Your task to perform on an android device: toggle location history Image 0: 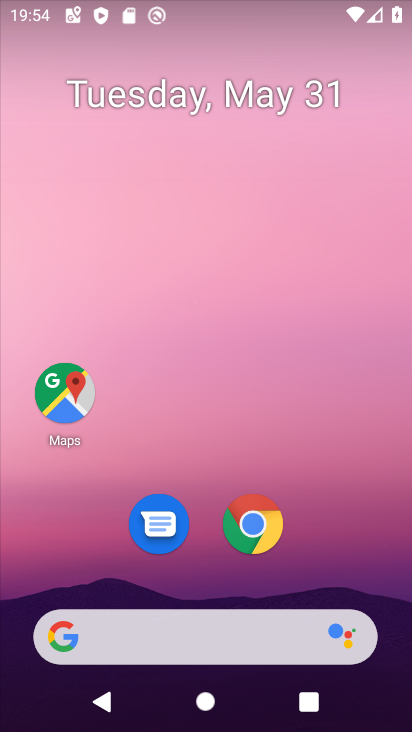
Step 0: drag from (315, 531) to (315, 0)
Your task to perform on an android device: toggle location history Image 1: 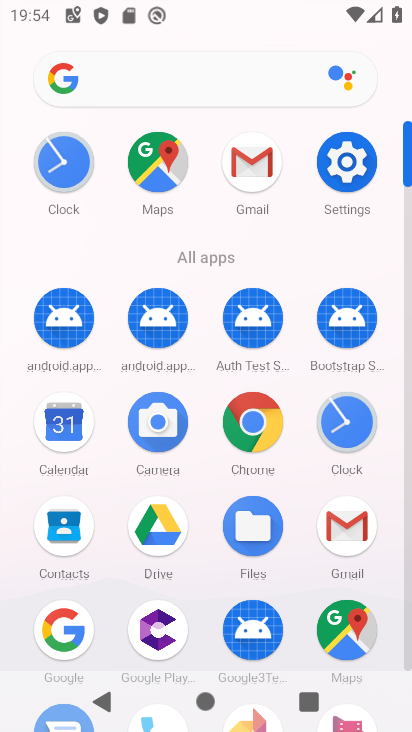
Step 1: click (349, 154)
Your task to perform on an android device: toggle location history Image 2: 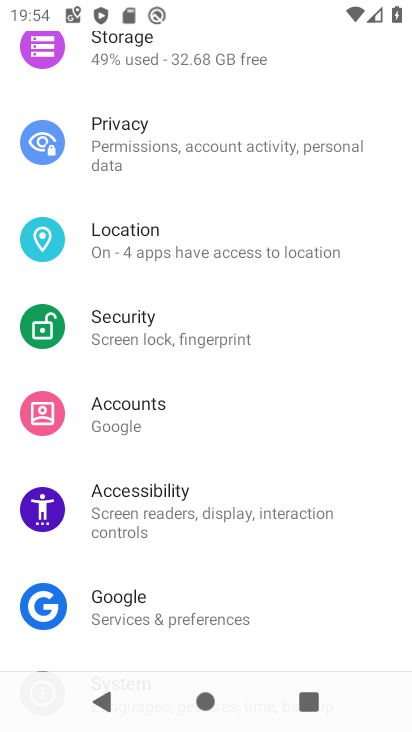
Step 2: click (291, 237)
Your task to perform on an android device: toggle location history Image 3: 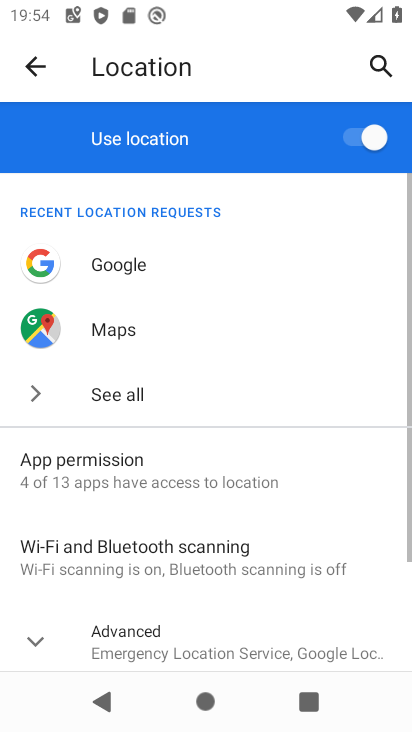
Step 3: click (27, 639)
Your task to perform on an android device: toggle location history Image 4: 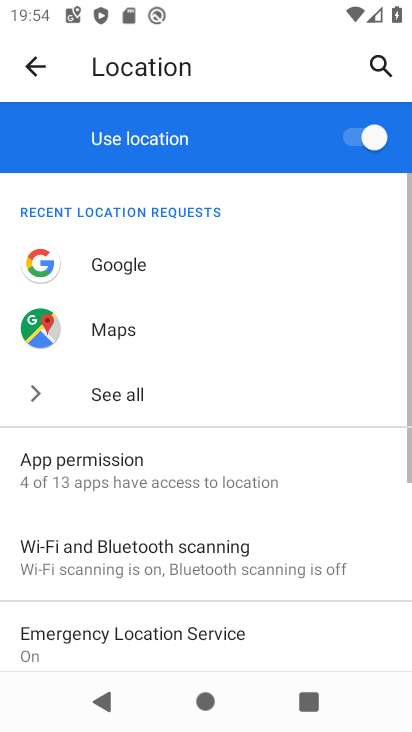
Step 4: drag from (220, 570) to (271, 146)
Your task to perform on an android device: toggle location history Image 5: 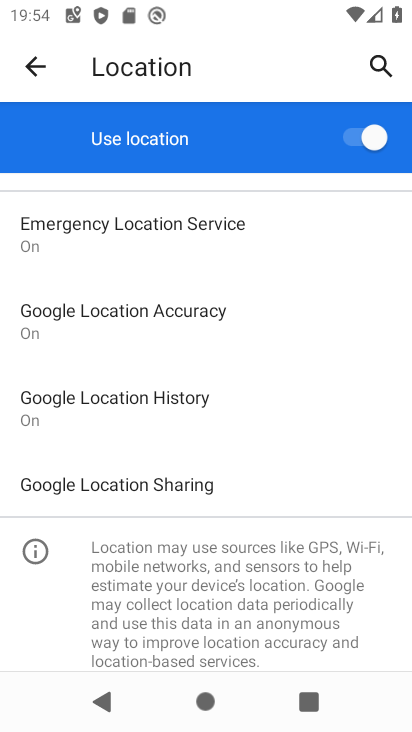
Step 5: click (165, 406)
Your task to perform on an android device: toggle location history Image 6: 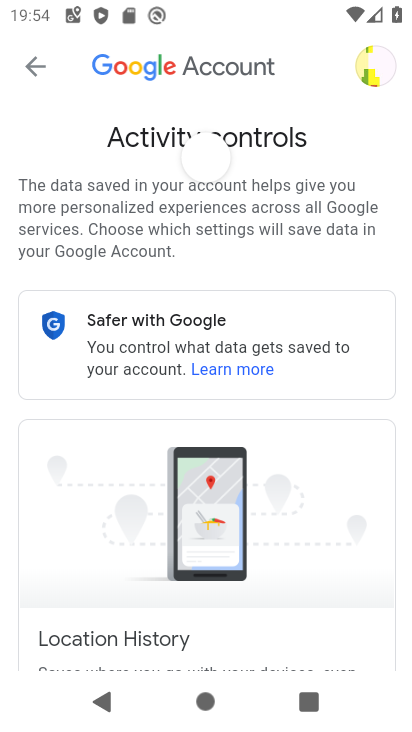
Step 6: drag from (163, 423) to (215, 80)
Your task to perform on an android device: toggle location history Image 7: 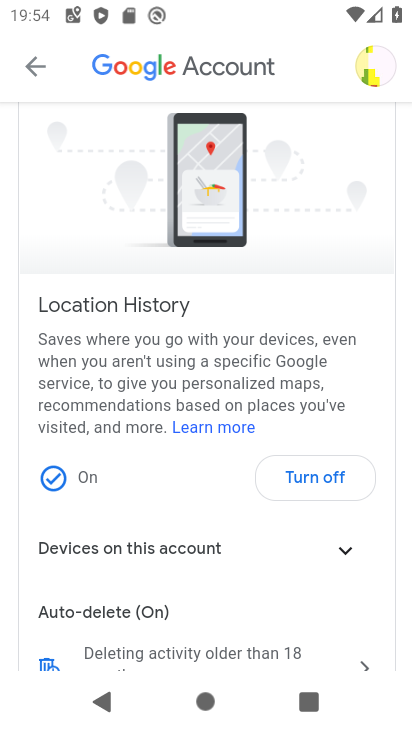
Step 7: click (326, 469)
Your task to perform on an android device: toggle location history Image 8: 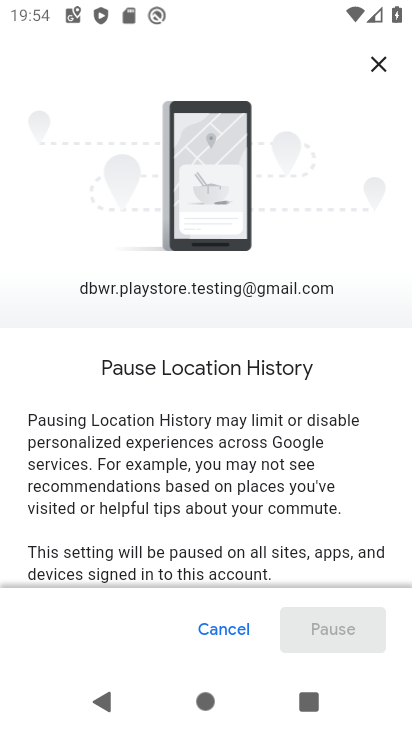
Step 8: drag from (308, 531) to (224, 21)
Your task to perform on an android device: toggle location history Image 9: 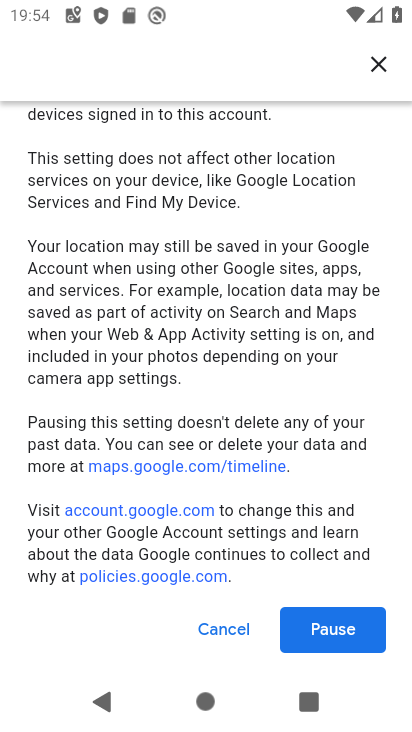
Step 9: click (334, 628)
Your task to perform on an android device: toggle location history Image 10: 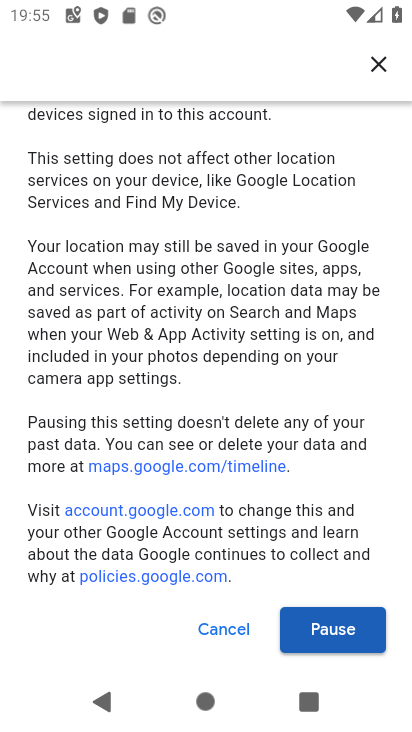
Step 10: click (334, 626)
Your task to perform on an android device: toggle location history Image 11: 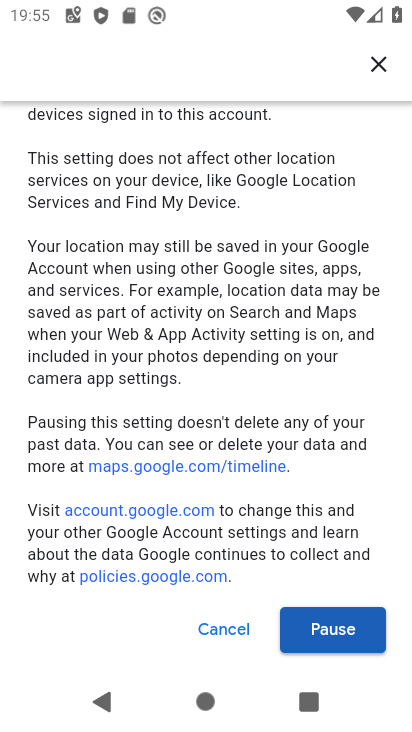
Step 11: click (334, 625)
Your task to perform on an android device: toggle location history Image 12: 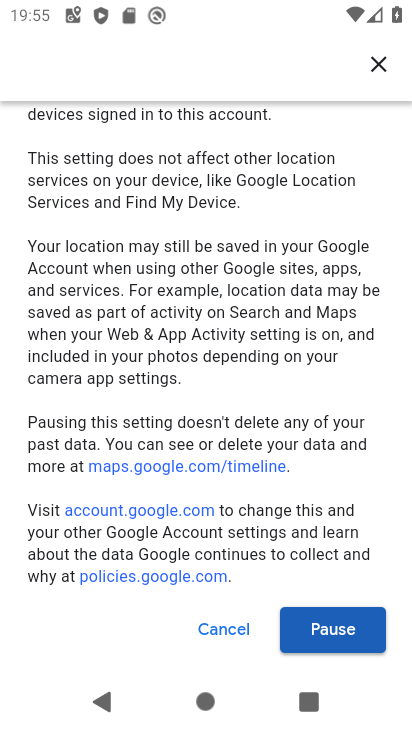
Step 12: click (346, 630)
Your task to perform on an android device: toggle location history Image 13: 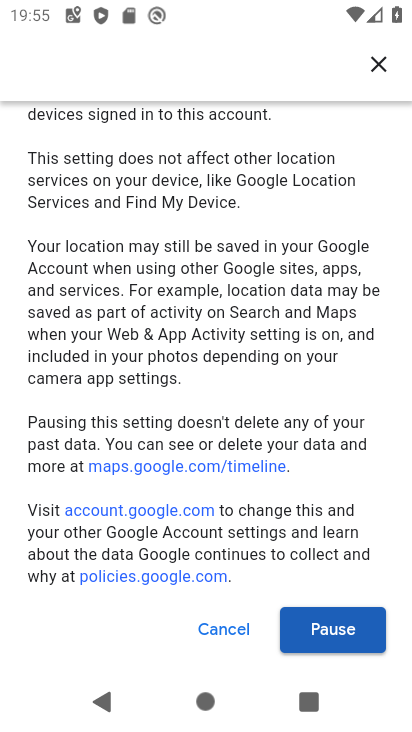
Step 13: click (346, 630)
Your task to perform on an android device: toggle location history Image 14: 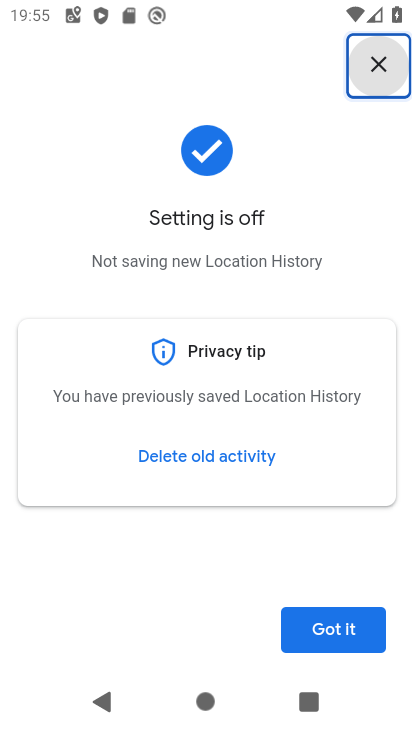
Step 14: click (346, 630)
Your task to perform on an android device: toggle location history Image 15: 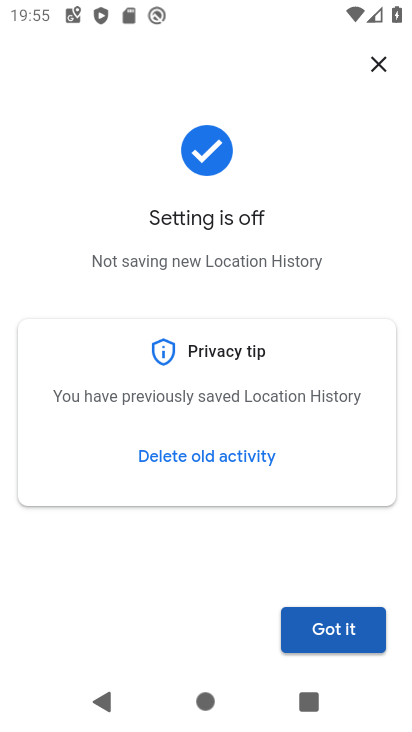
Step 15: click (346, 631)
Your task to perform on an android device: toggle location history Image 16: 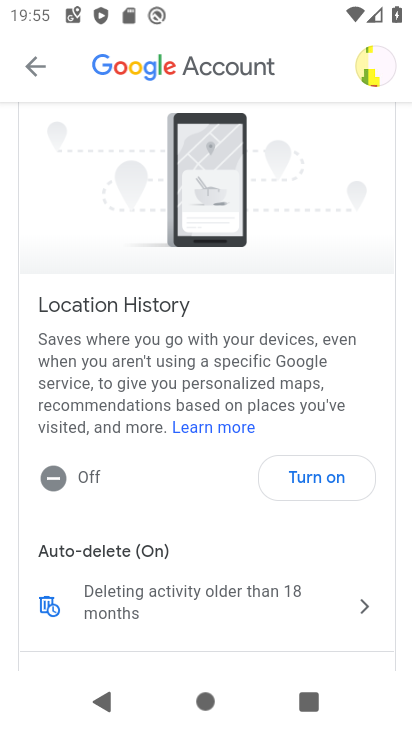
Step 16: task complete